Your task to perform on an android device: change alarm snooze length Image 0: 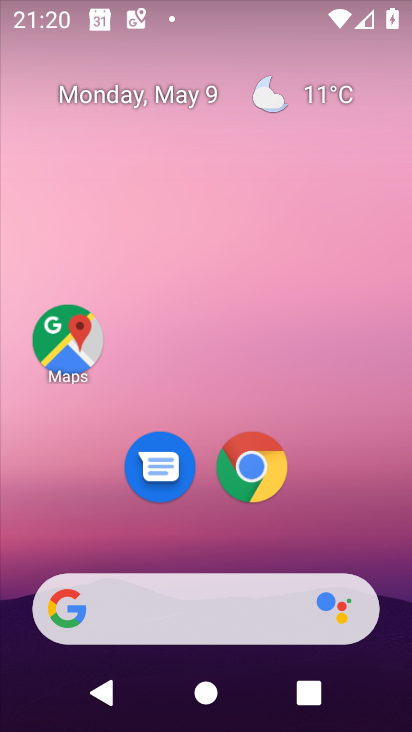
Step 0: drag from (338, 471) to (353, 211)
Your task to perform on an android device: change alarm snooze length Image 1: 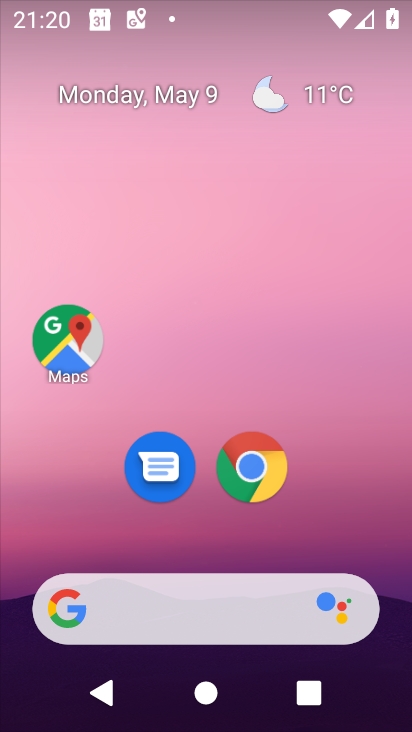
Step 1: click (315, 549)
Your task to perform on an android device: change alarm snooze length Image 2: 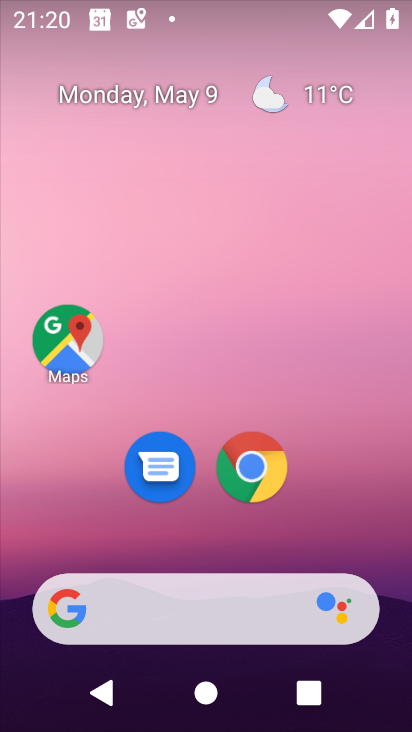
Step 2: drag from (317, 532) to (320, 254)
Your task to perform on an android device: change alarm snooze length Image 3: 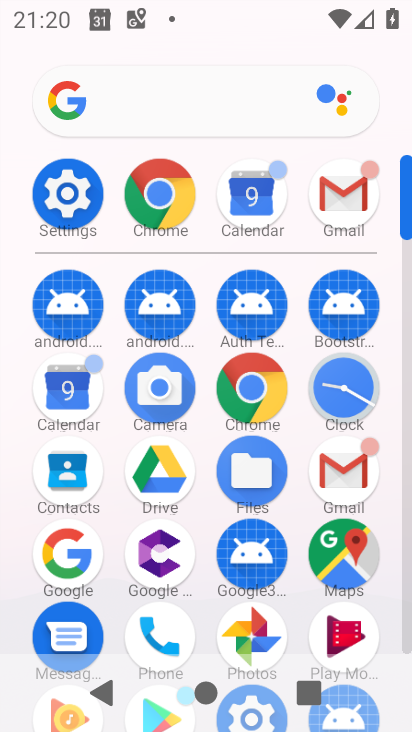
Step 3: click (327, 379)
Your task to perform on an android device: change alarm snooze length Image 4: 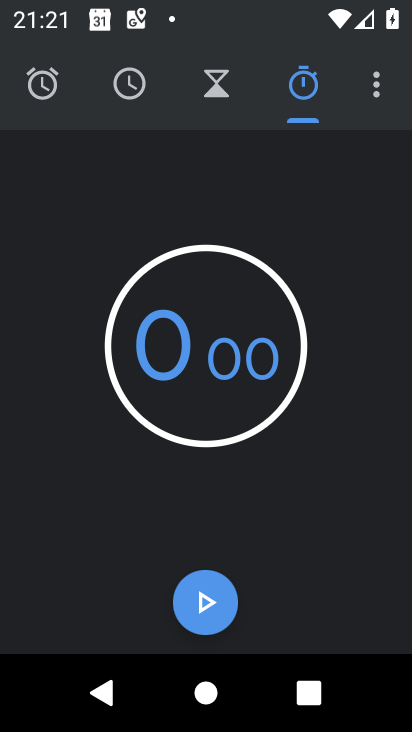
Step 4: click (372, 83)
Your task to perform on an android device: change alarm snooze length Image 5: 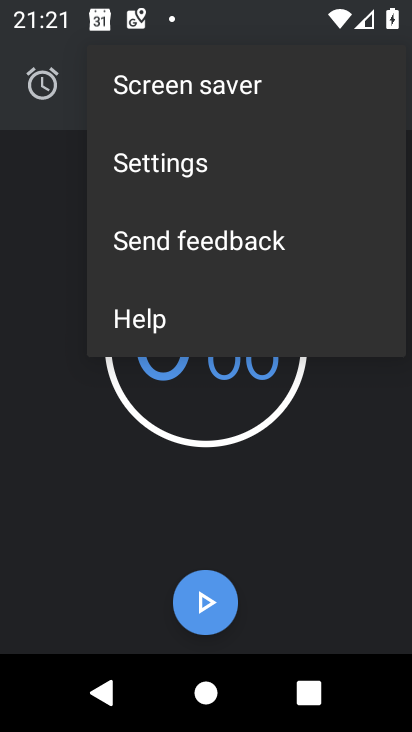
Step 5: click (184, 171)
Your task to perform on an android device: change alarm snooze length Image 6: 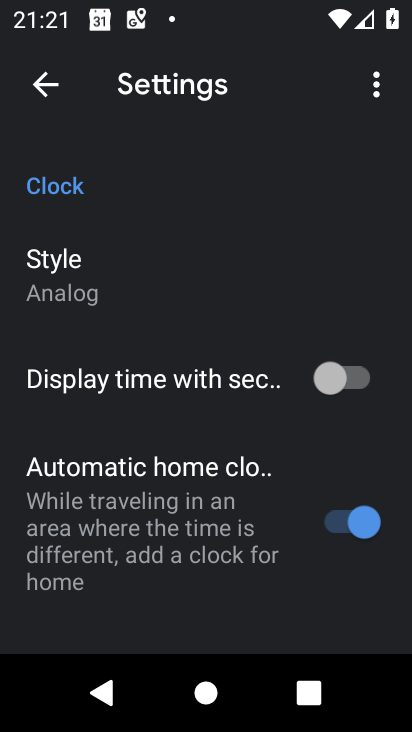
Step 6: drag from (157, 597) to (316, 78)
Your task to perform on an android device: change alarm snooze length Image 7: 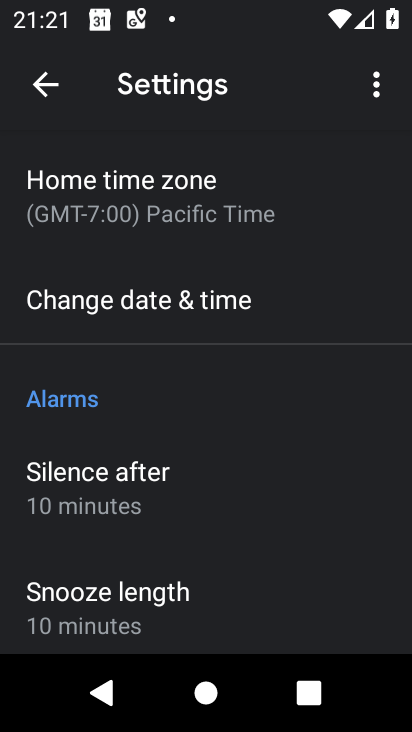
Step 7: drag from (139, 583) to (189, 415)
Your task to perform on an android device: change alarm snooze length Image 8: 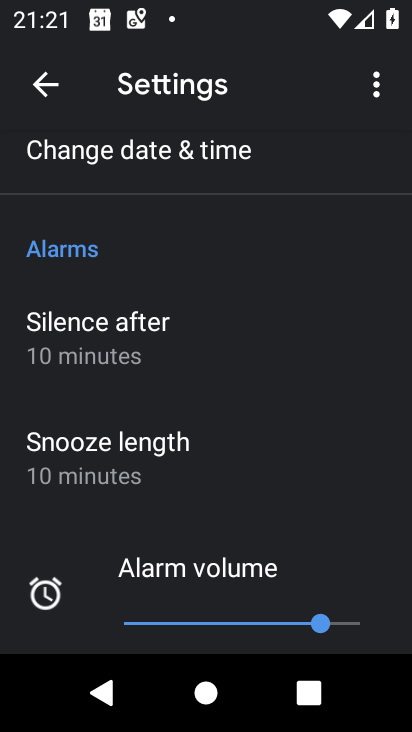
Step 8: click (67, 473)
Your task to perform on an android device: change alarm snooze length Image 9: 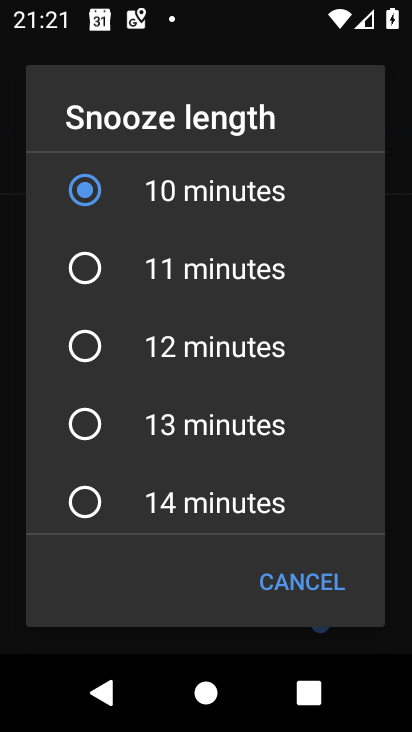
Step 9: click (244, 426)
Your task to perform on an android device: change alarm snooze length Image 10: 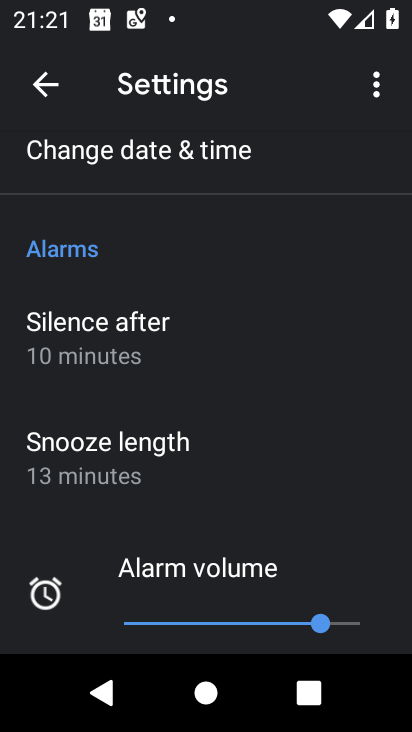
Step 10: task complete